Your task to perform on an android device: turn on priority inbox in the gmail app Image 0: 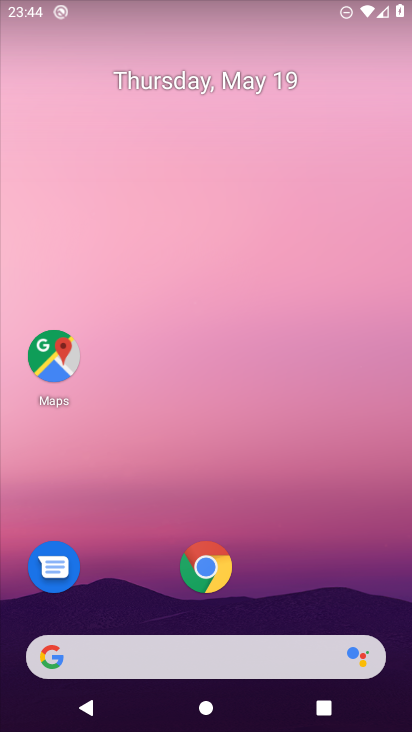
Step 0: press home button
Your task to perform on an android device: turn on priority inbox in the gmail app Image 1: 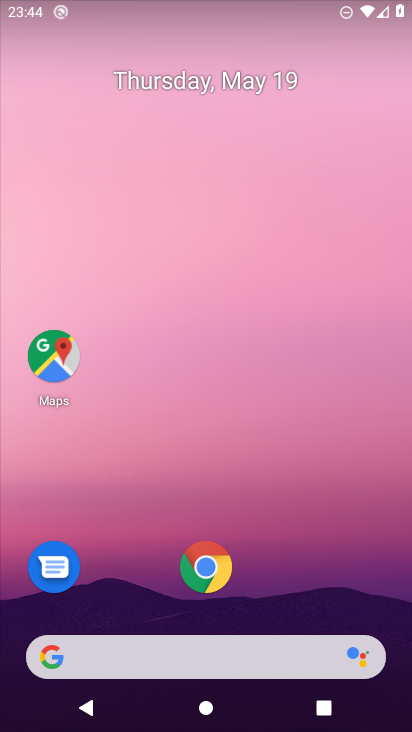
Step 1: drag from (286, 605) to (338, 55)
Your task to perform on an android device: turn on priority inbox in the gmail app Image 2: 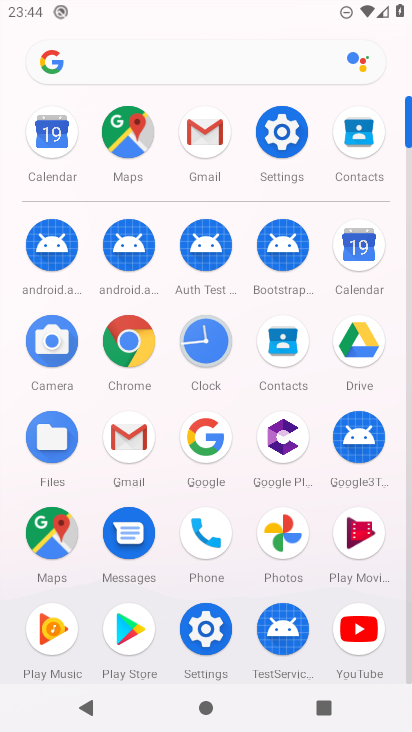
Step 2: click (197, 125)
Your task to perform on an android device: turn on priority inbox in the gmail app Image 3: 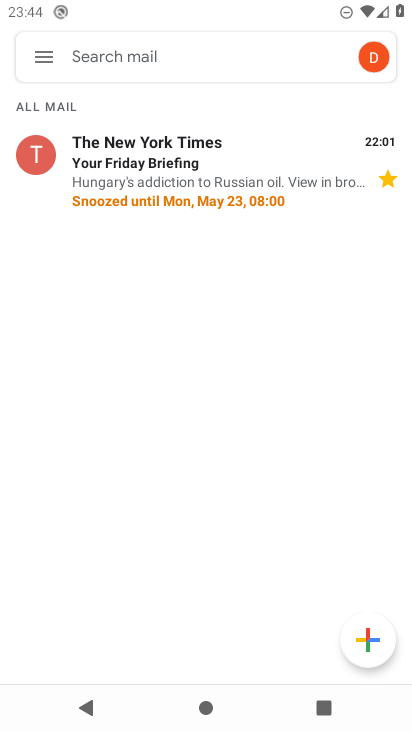
Step 3: click (48, 46)
Your task to perform on an android device: turn on priority inbox in the gmail app Image 4: 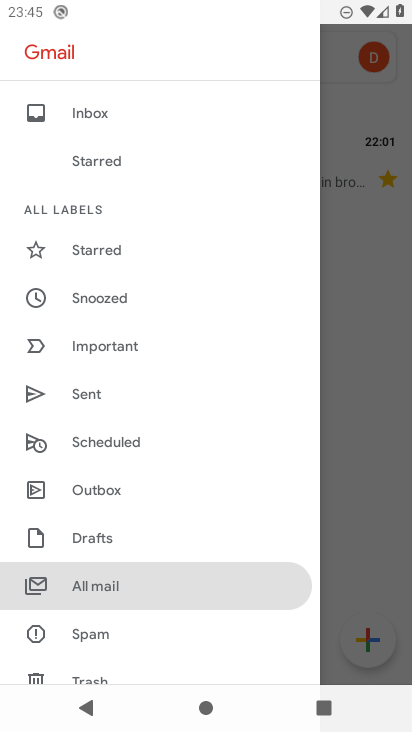
Step 4: drag from (150, 614) to (220, 84)
Your task to perform on an android device: turn on priority inbox in the gmail app Image 5: 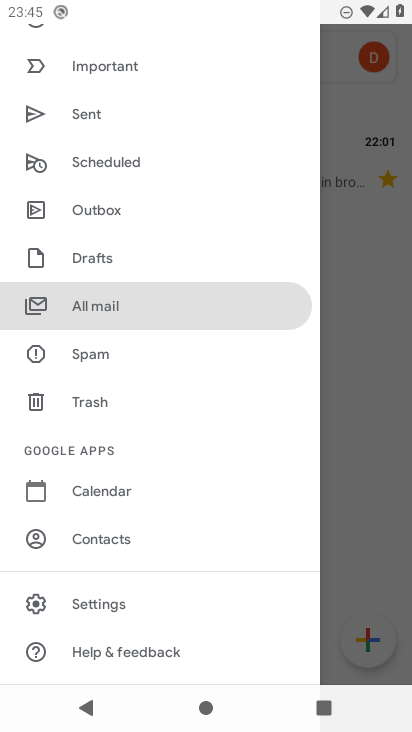
Step 5: click (133, 604)
Your task to perform on an android device: turn on priority inbox in the gmail app Image 6: 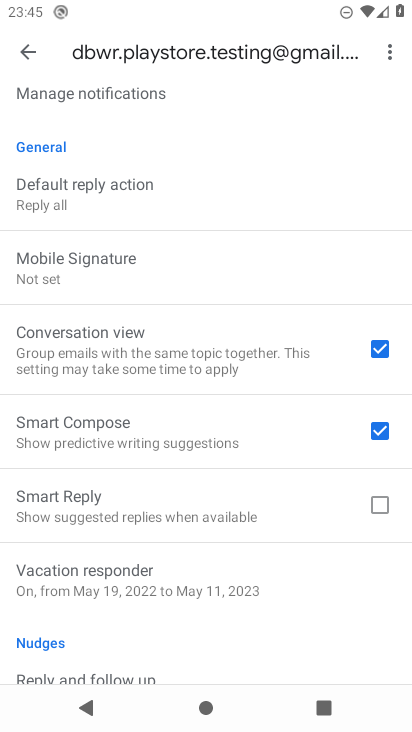
Step 6: drag from (116, 179) to (156, 724)
Your task to perform on an android device: turn on priority inbox in the gmail app Image 7: 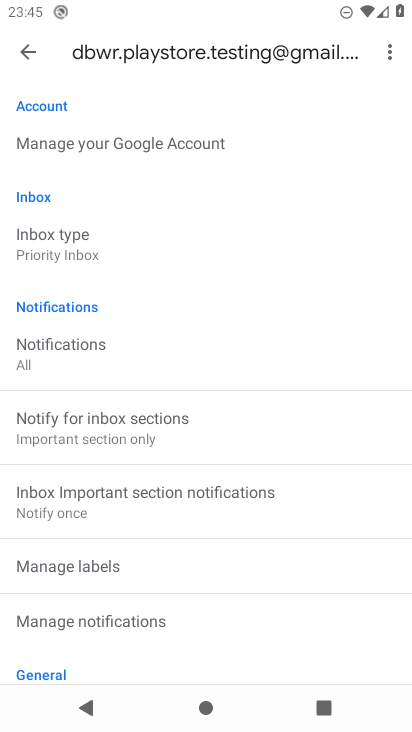
Step 7: click (129, 245)
Your task to perform on an android device: turn on priority inbox in the gmail app Image 8: 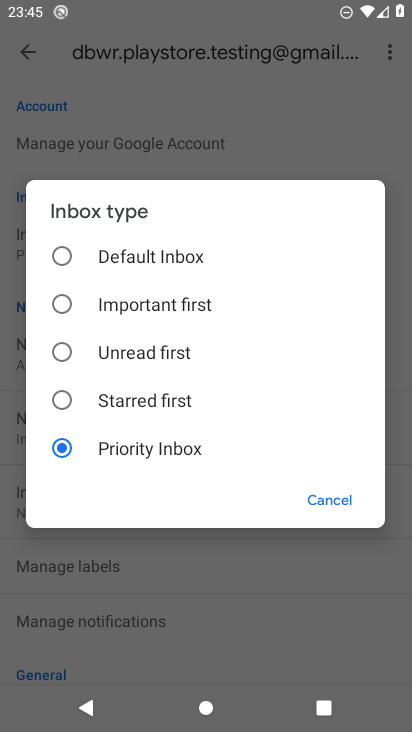
Step 8: click (120, 447)
Your task to perform on an android device: turn on priority inbox in the gmail app Image 9: 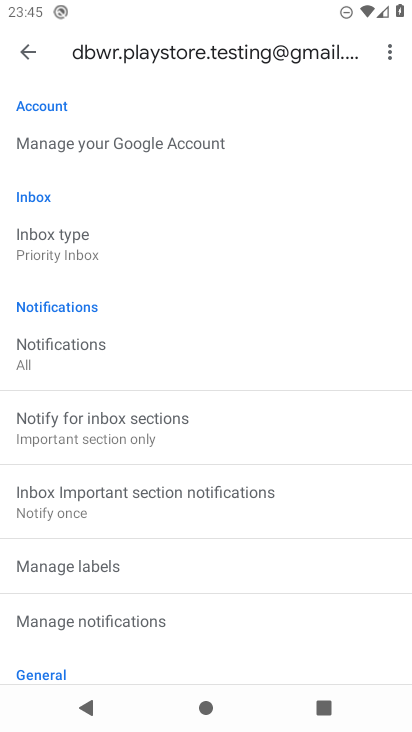
Step 9: task complete